Your task to perform on an android device: toggle data saver in the chrome app Image 0: 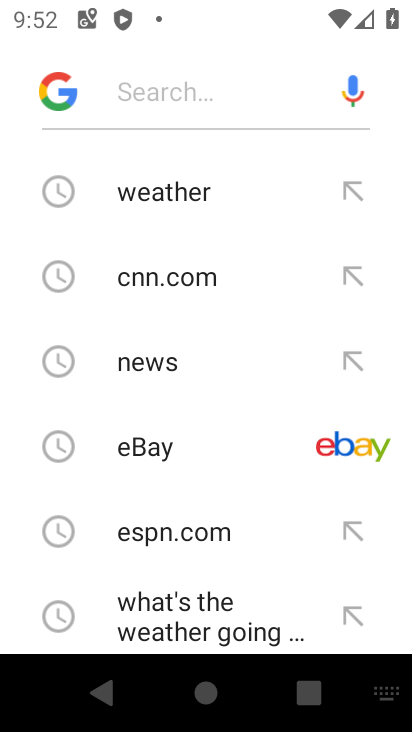
Step 0: press home button
Your task to perform on an android device: toggle data saver in the chrome app Image 1: 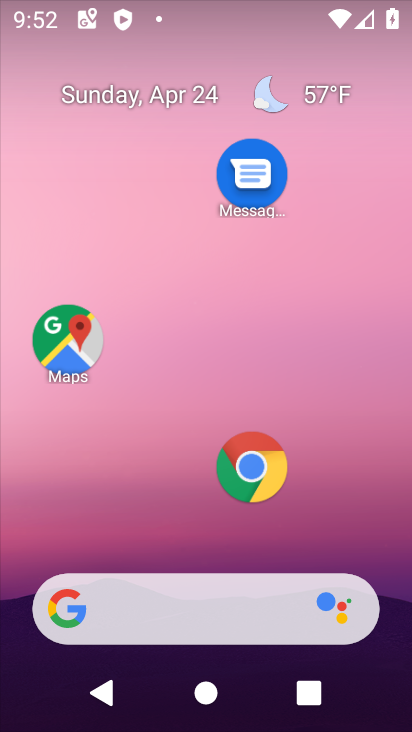
Step 1: click (186, 564)
Your task to perform on an android device: toggle data saver in the chrome app Image 2: 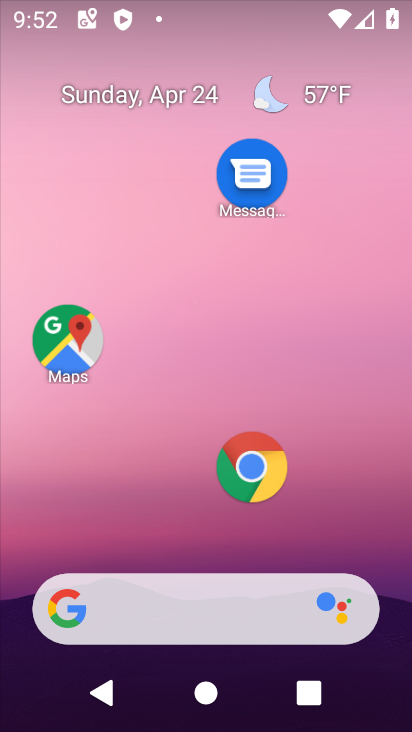
Step 2: click (237, 506)
Your task to perform on an android device: toggle data saver in the chrome app Image 3: 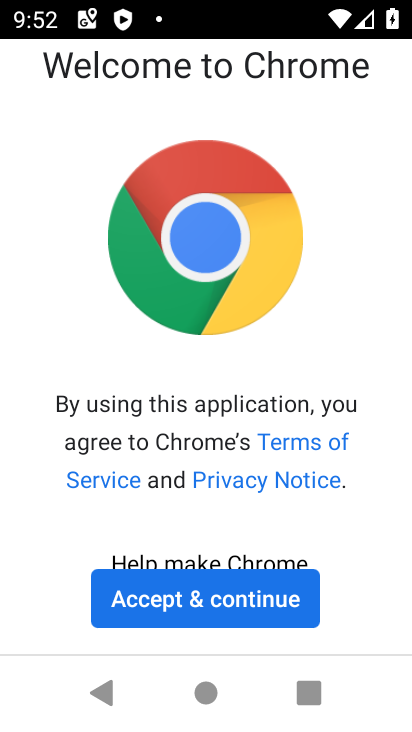
Step 3: click (161, 610)
Your task to perform on an android device: toggle data saver in the chrome app Image 4: 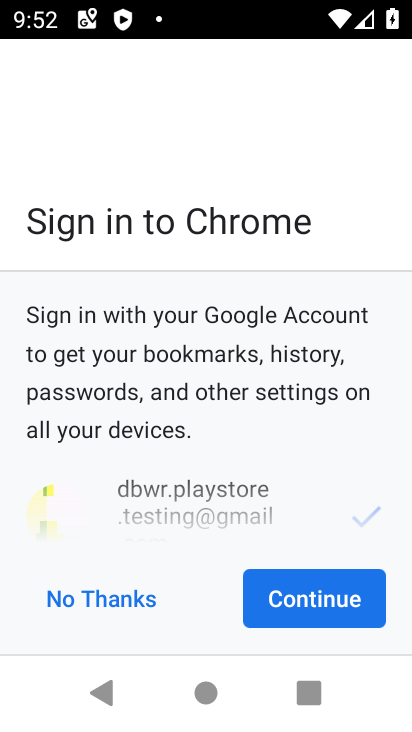
Step 4: click (326, 612)
Your task to perform on an android device: toggle data saver in the chrome app Image 5: 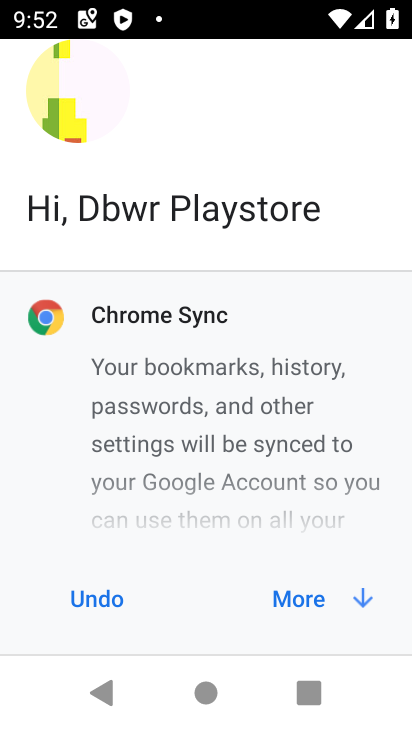
Step 5: click (326, 612)
Your task to perform on an android device: toggle data saver in the chrome app Image 6: 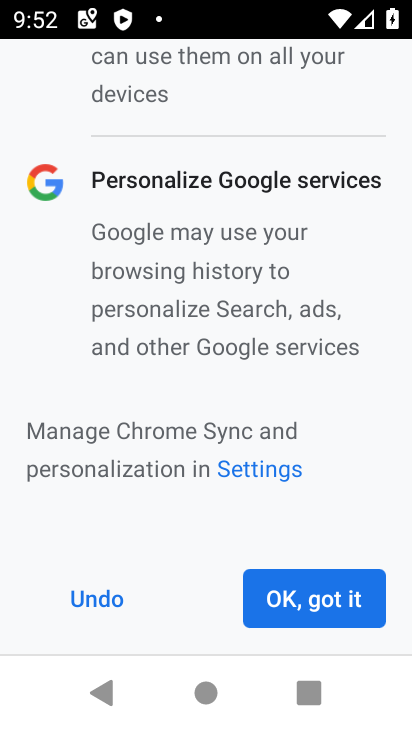
Step 6: click (326, 612)
Your task to perform on an android device: toggle data saver in the chrome app Image 7: 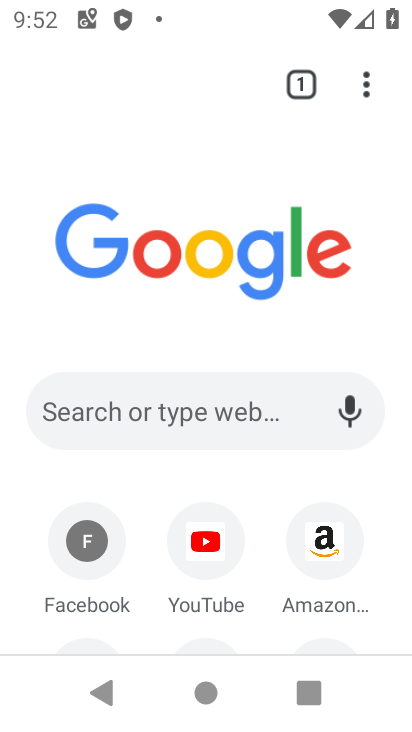
Step 7: click (371, 92)
Your task to perform on an android device: toggle data saver in the chrome app Image 8: 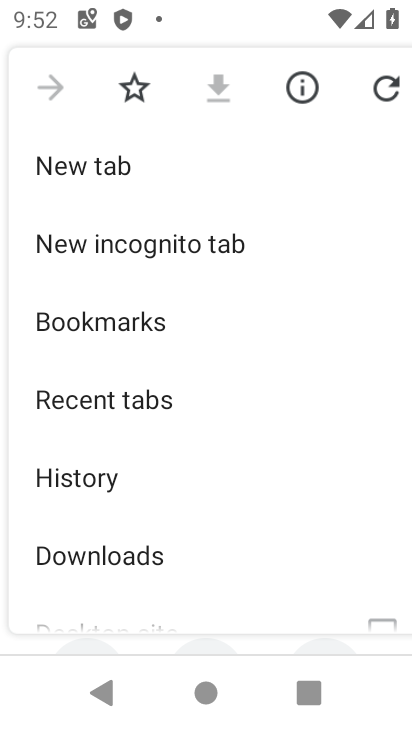
Step 8: drag from (148, 575) to (187, 260)
Your task to perform on an android device: toggle data saver in the chrome app Image 9: 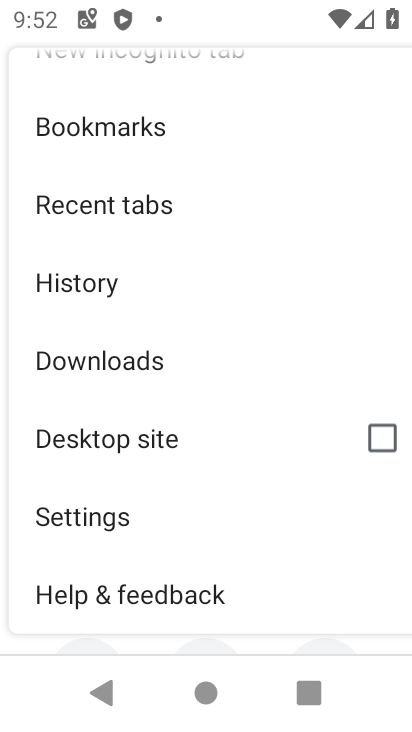
Step 9: click (124, 503)
Your task to perform on an android device: toggle data saver in the chrome app Image 10: 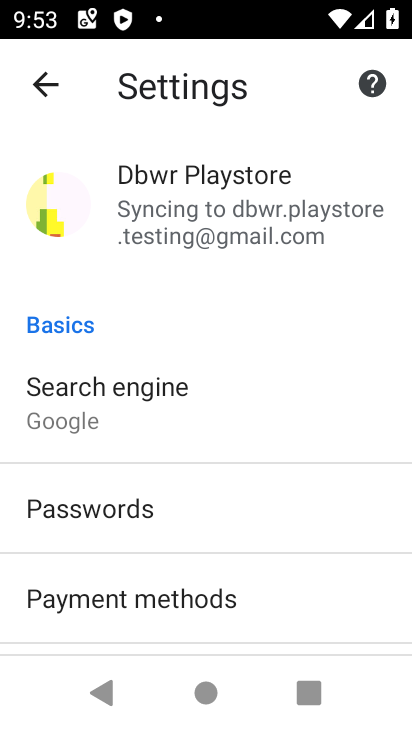
Step 10: drag from (271, 528) to (284, 156)
Your task to perform on an android device: toggle data saver in the chrome app Image 11: 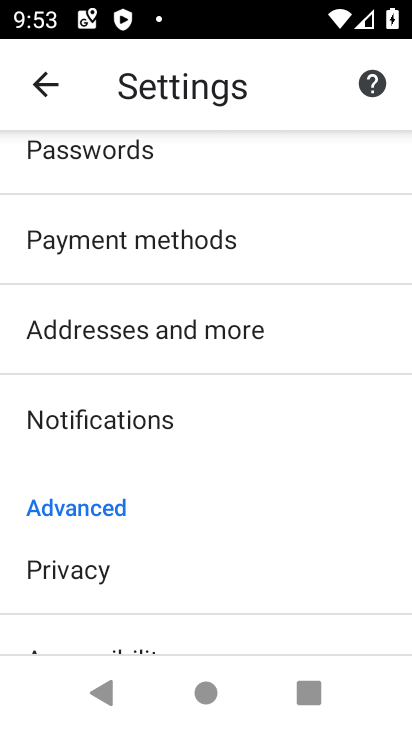
Step 11: drag from (236, 505) to (262, 238)
Your task to perform on an android device: toggle data saver in the chrome app Image 12: 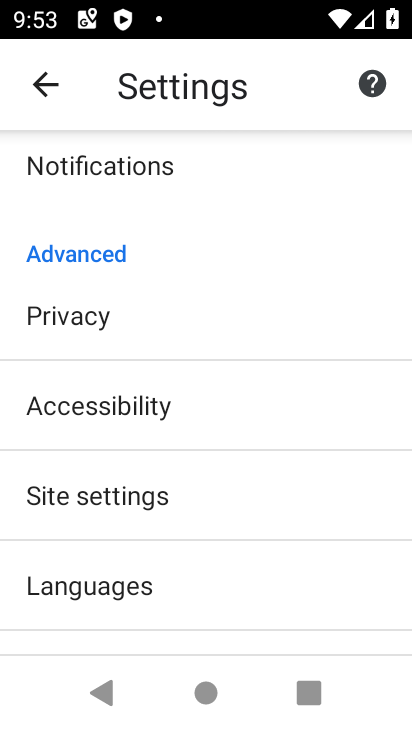
Step 12: drag from (203, 552) to (204, 380)
Your task to perform on an android device: toggle data saver in the chrome app Image 13: 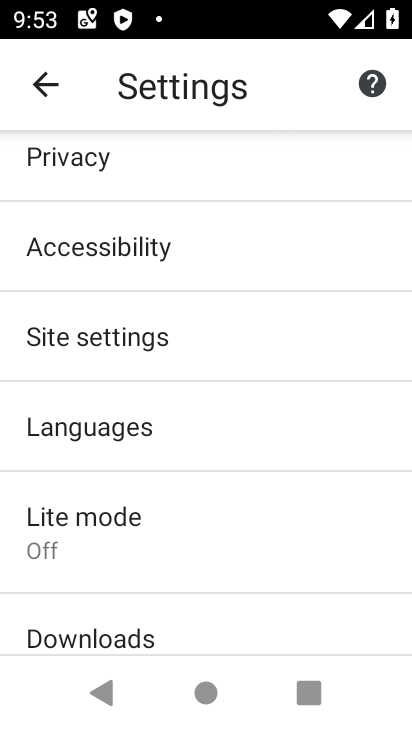
Step 13: click (75, 577)
Your task to perform on an android device: toggle data saver in the chrome app Image 14: 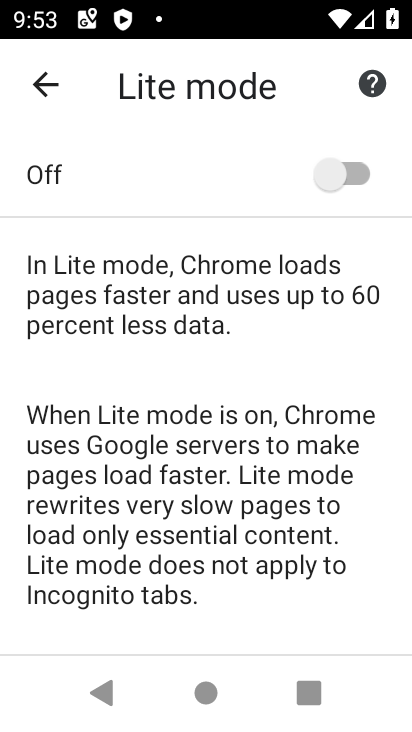
Step 14: click (348, 179)
Your task to perform on an android device: toggle data saver in the chrome app Image 15: 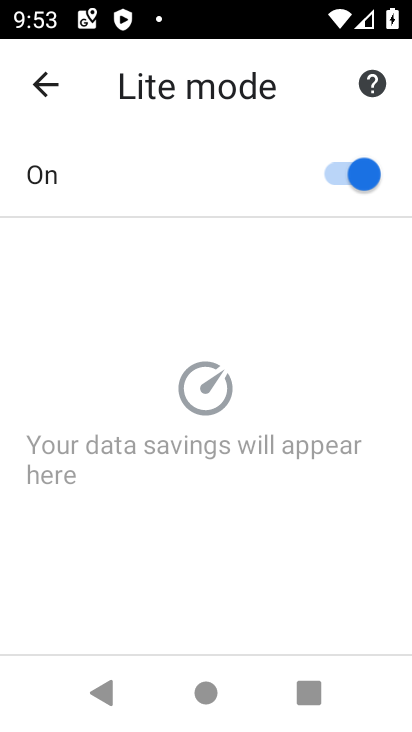
Step 15: task complete